Your task to perform on an android device: Open my contact list Image 0: 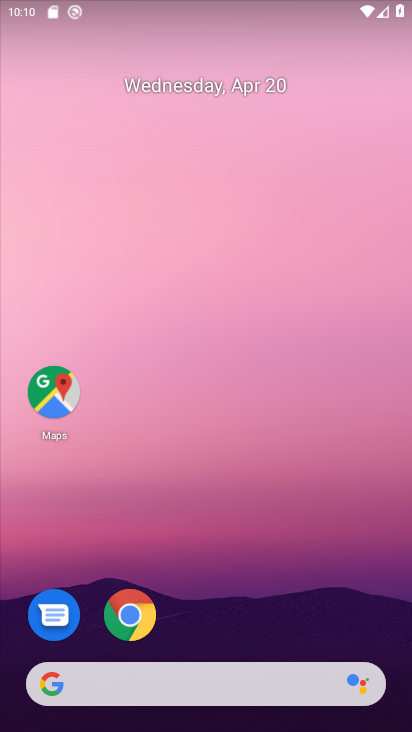
Step 0: drag from (344, 588) to (290, 117)
Your task to perform on an android device: Open my contact list Image 1: 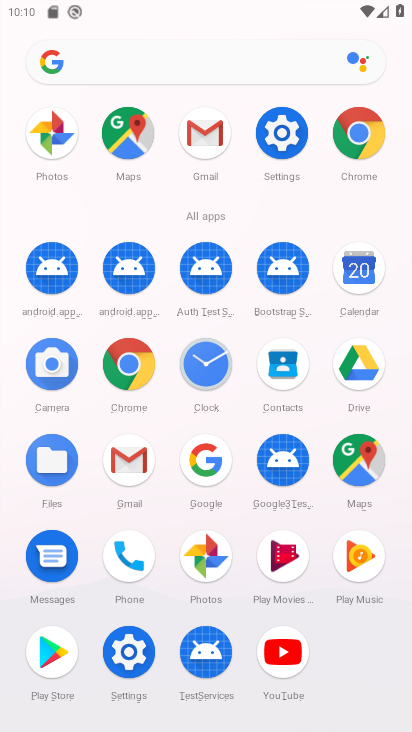
Step 1: click (284, 369)
Your task to perform on an android device: Open my contact list Image 2: 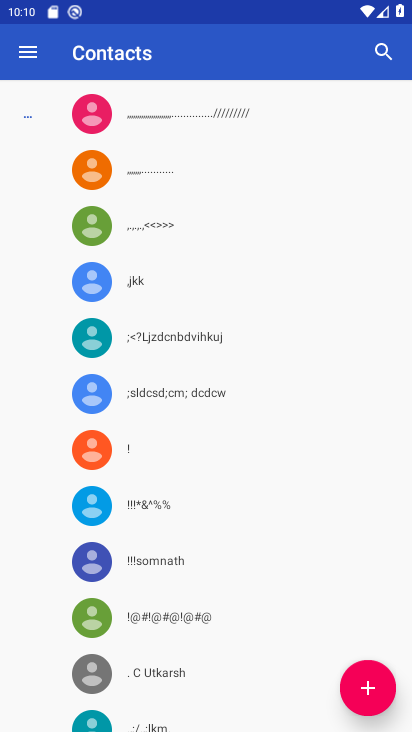
Step 2: task complete